Your task to perform on an android device: Open calendar and show me the third week of next month Image 0: 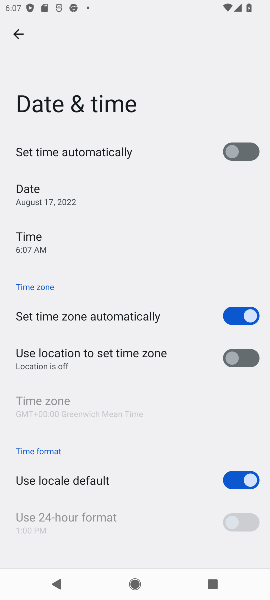
Step 0: press home button
Your task to perform on an android device: Open calendar and show me the third week of next month Image 1: 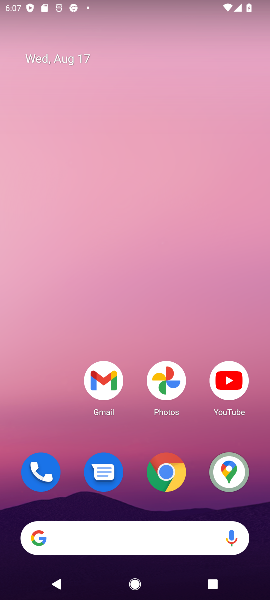
Step 1: drag from (133, 453) to (133, 19)
Your task to perform on an android device: Open calendar and show me the third week of next month Image 2: 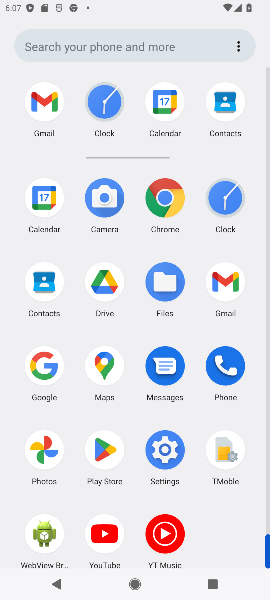
Step 2: click (177, 115)
Your task to perform on an android device: Open calendar and show me the third week of next month Image 3: 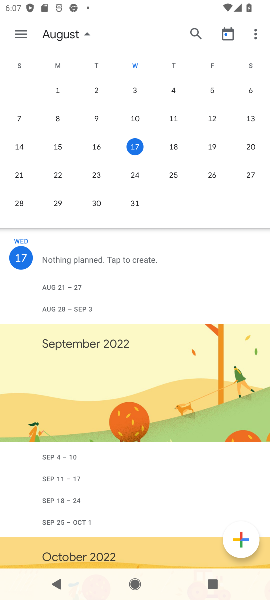
Step 3: drag from (214, 165) to (0, 132)
Your task to perform on an android device: Open calendar and show me the third week of next month Image 4: 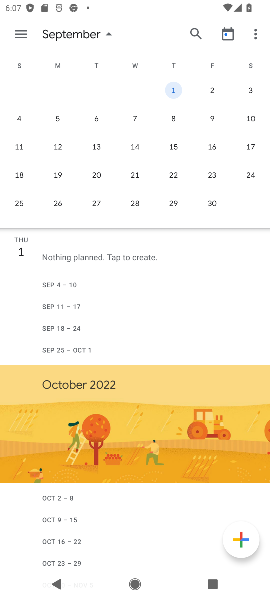
Step 4: click (13, 117)
Your task to perform on an android device: Open calendar and show me the third week of next month Image 5: 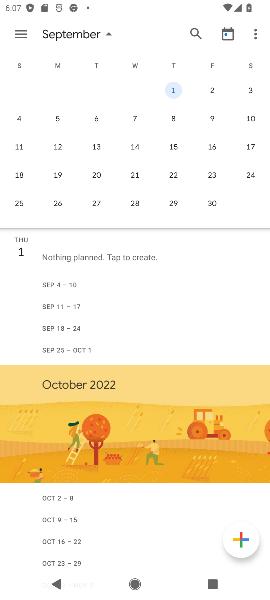
Step 5: click (23, 145)
Your task to perform on an android device: Open calendar and show me the third week of next month Image 6: 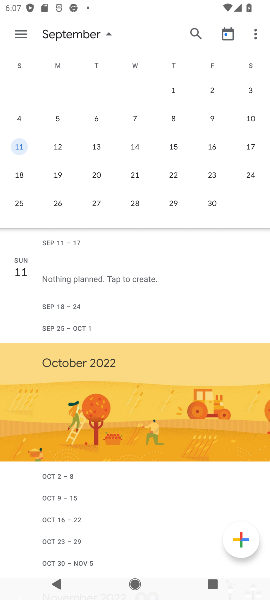
Step 6: task complete